Your task to perform on an android device: turn off notifications in google photos Image 0: 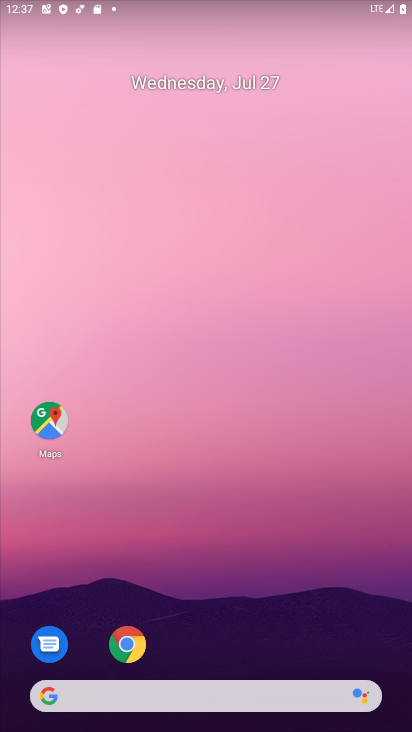
Step 0: drag from (199, 645) to (223, 17)
Your task to perform on an android device: turn off notifications in google photos Image 1: 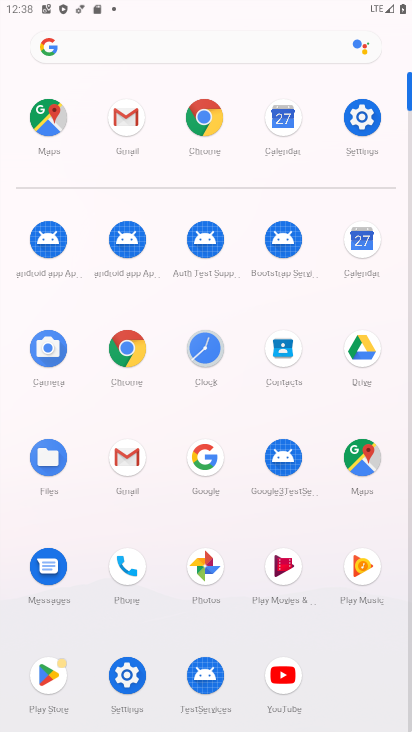
Step 1: click (200, 571)
Your task to perform on an android device: turn off notifications in google photos Image 2: 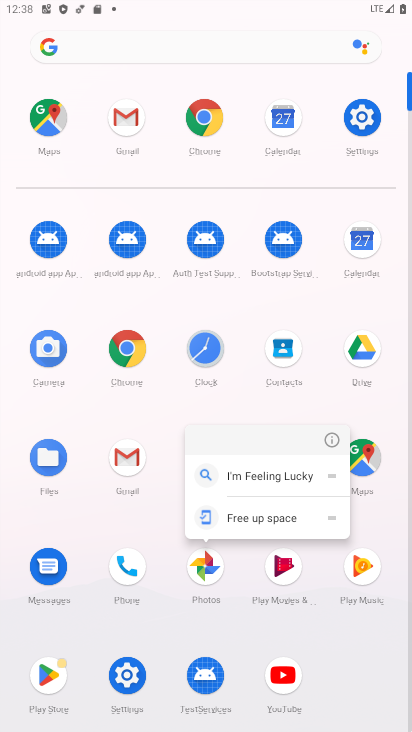
Step 2: click (215, 606)
Your task to perform on an android device: turn off notifications in google photos Image 3: 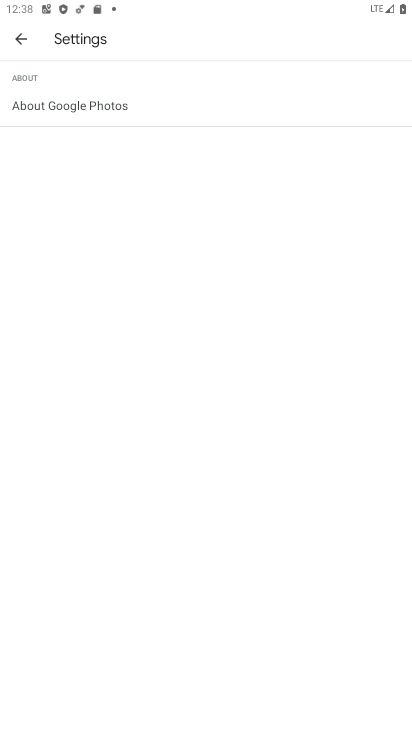
Step 3: click (17, 39)
Your task to perform on an android device: turn off notifications in google photos Image 4: 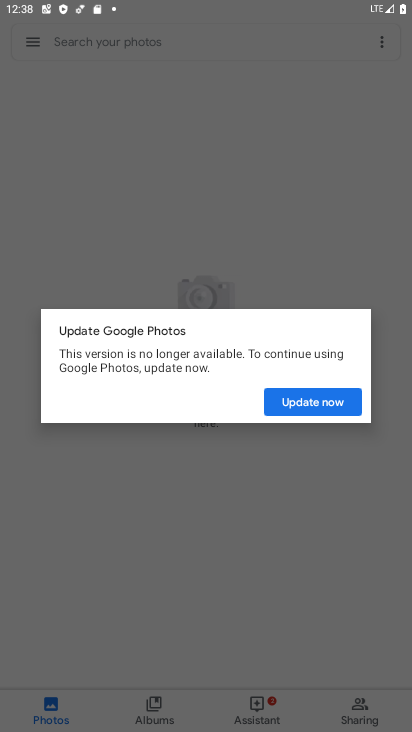
Step 4: click (301, 413)
Your task to perform on an android device: turn off notifications in google photos Image 5: 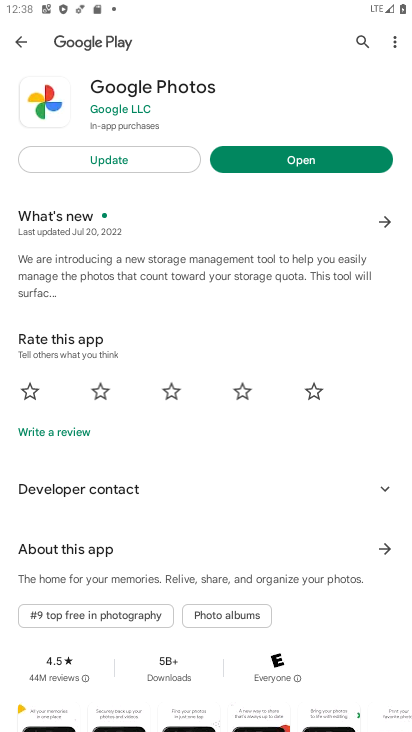
Step 5: click (296, 157)
Your task to perform on an android device: turn off notifications in google photos Image 6: 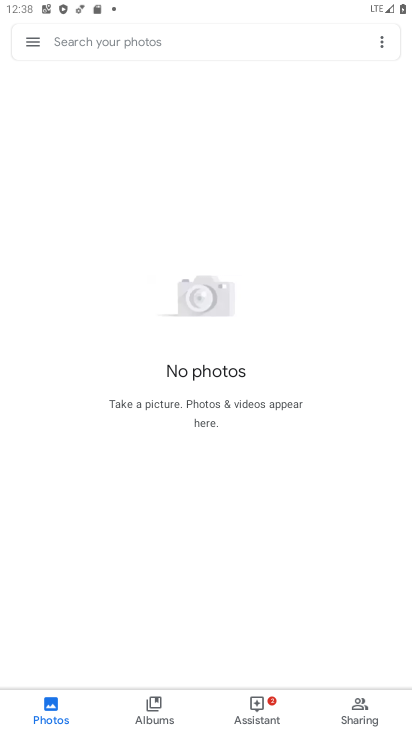
Step 6: click (34, 49)
Your task to perform on an android device: turn off notifications in google photos Image 7: 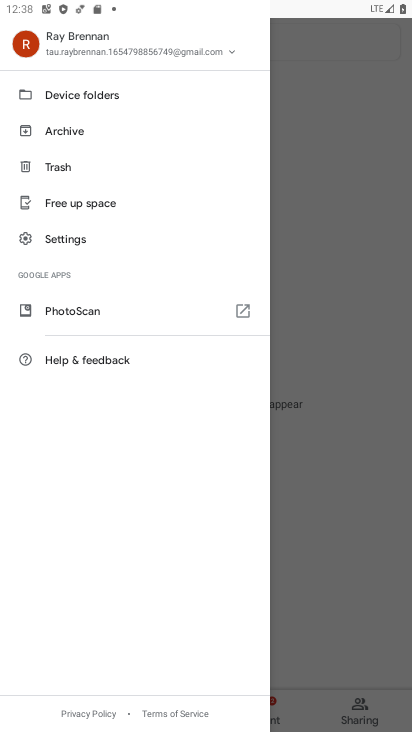
Step 7: click (71, 243)
Your task to perform on an android device: turn off notifications in google photos Image 8: 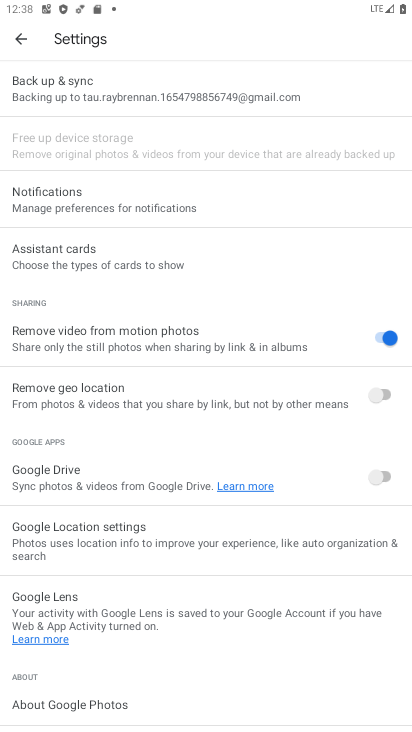
Step 8: click (75, 193)
Your task to perform on an android device: turn off notifications in google photos Image 9: 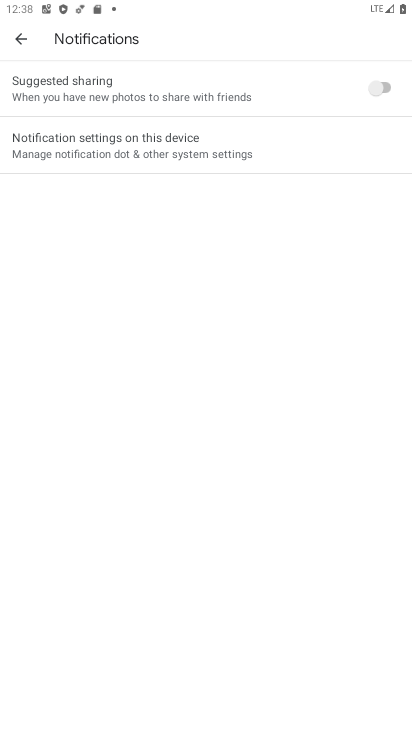
Step 9: click (198, 147)
Your task to perform on an android device: turn off notifications in google photos Image 10: 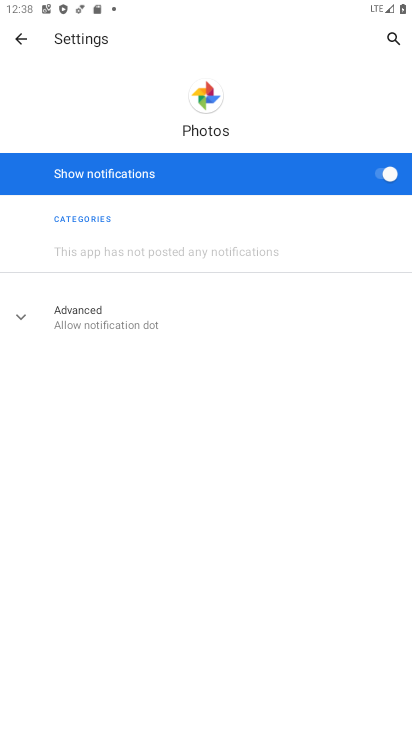
Step 10: click (355, 177)
Your task to perform on an android device: turn off notifications in google photos Image 11: 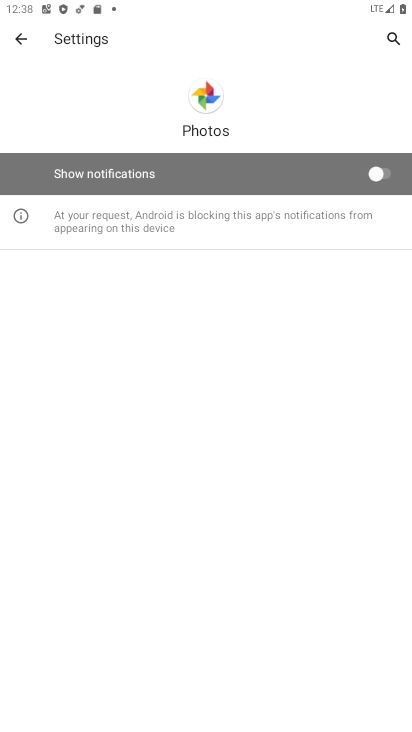
Step 11: task complete